Your task to perform on an android device: turn off javascript in the chrome app Image 0: 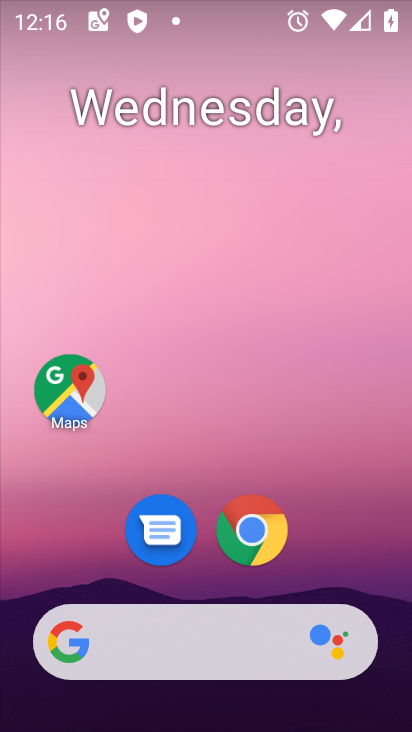
Step 0: click (256, 528)
Your task to perform on an android device: turn off javascript in the chrome app Image 1: 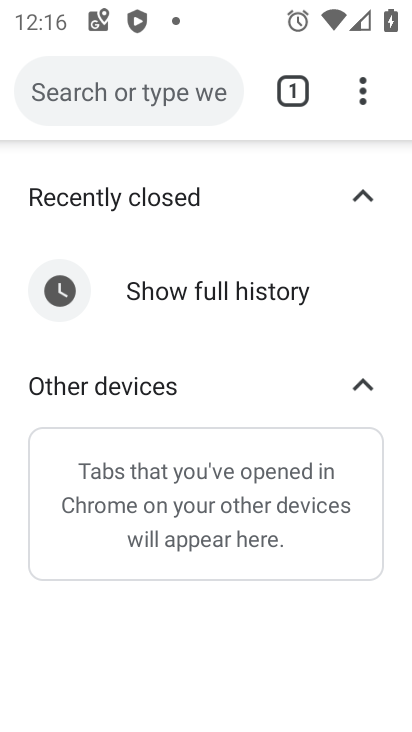
Step 1: click (363, 95)
Your task to perform on an android device: turn off javascript in the chrome app Image 2: 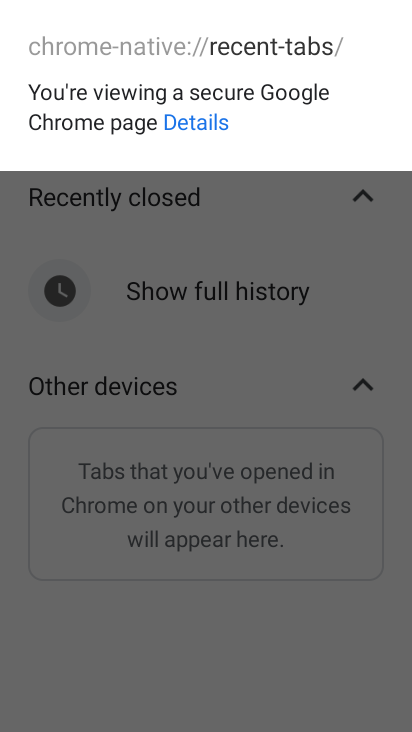
Step 2: click (264, 210)
Your task to perform on an android device: turn off javascript in the chrome app Image 3: 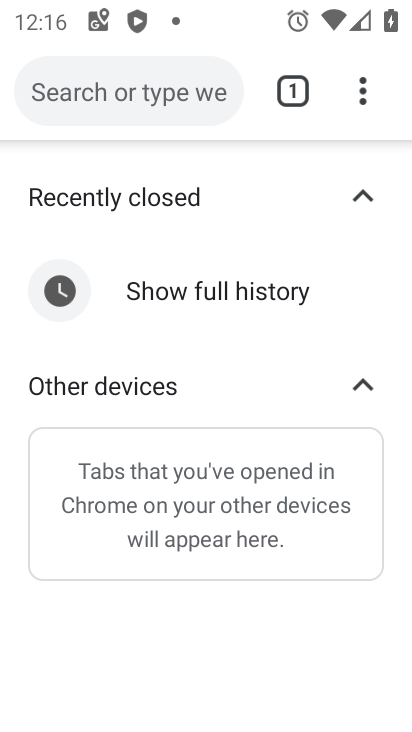
Step 3: click (361, 86)
Your task to perform on an android device: turn off javascript in the chrome app Image 4: 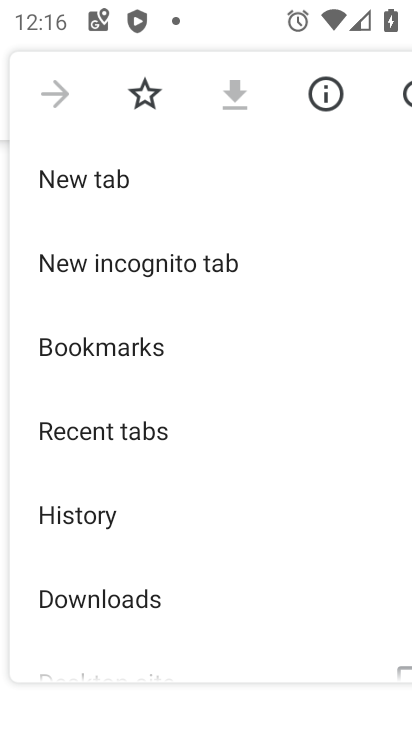
Step 4: drag from (103, 618) to (228, 238)
Your task to perform on an android device: turn off javascript in the chrome app Image 5: 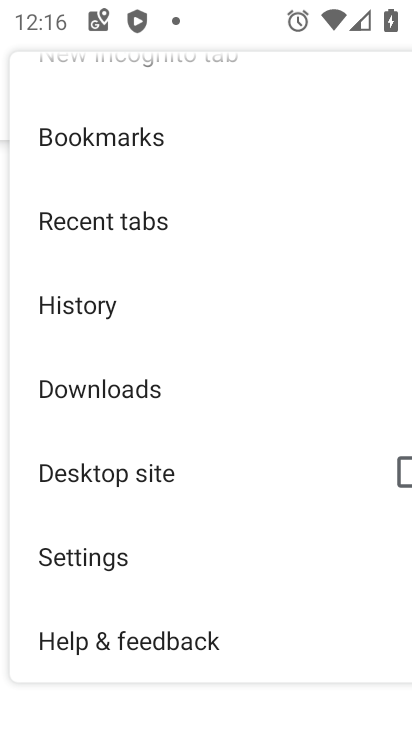
Step 5: click (78, 550)
Your task to perform on an android device: turn off javascript in the chrome app Image 6: 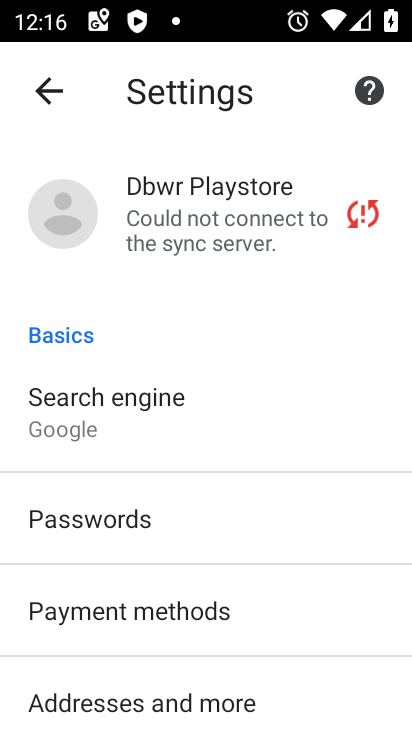
Step 6: drag from (251, 568) to (307, 206)
Your task to perform on an android device: turn off javascript in the chrome app Image 7: 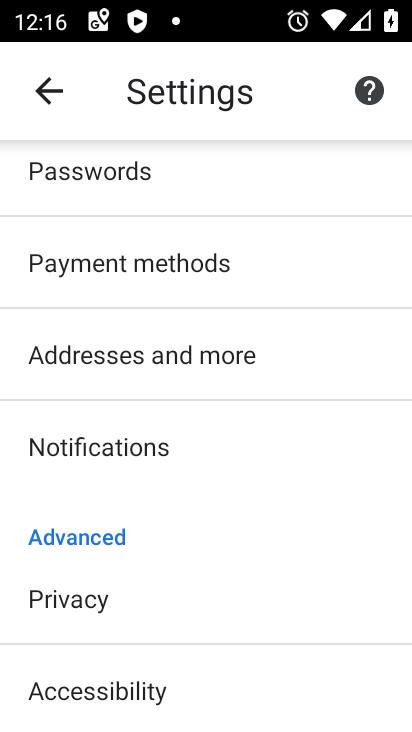
Step 7: drag from (189, 530) to (300, 221)
Your task to perform on an android device: turn off javascript in the chrome app Image 8: 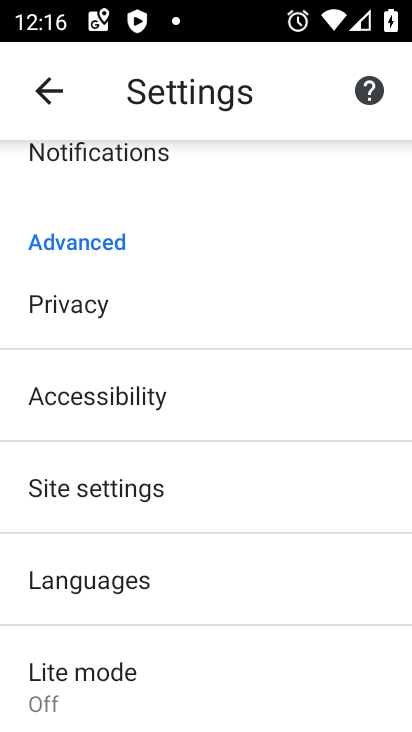
Step 8: click (85, 496)
Your task to perform on an android device: turn off javascript in the chrome app Image 9: 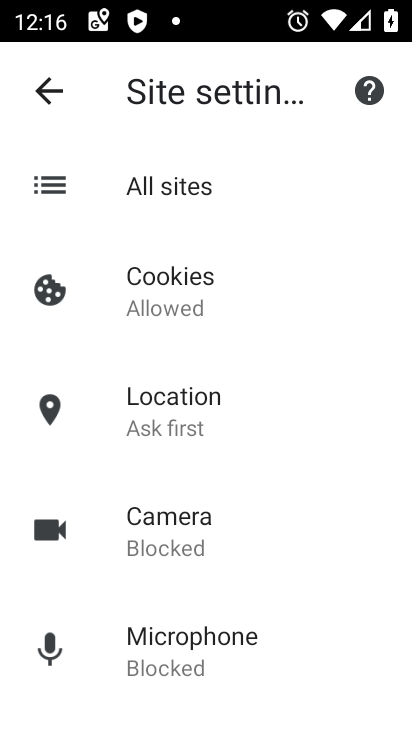
Step 9: drag from (192, 575) to (295, 187)
Your task to perform on an android device: turn off javascript in the chrome app Image 10: 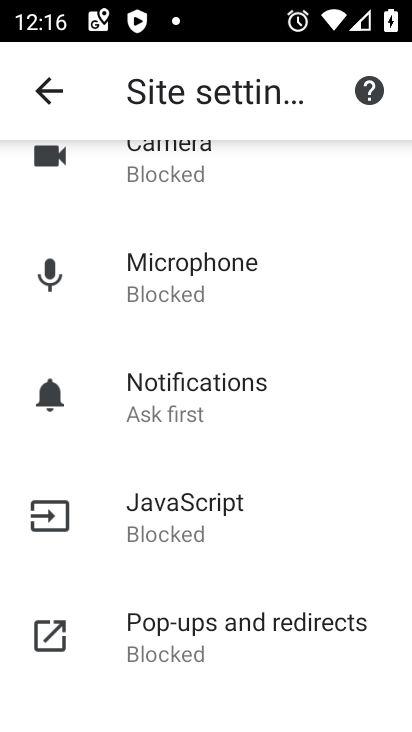
Step 10: click (182, 506)
Your task to perform on an android device: turn off javascript in the chrome app Image 11: 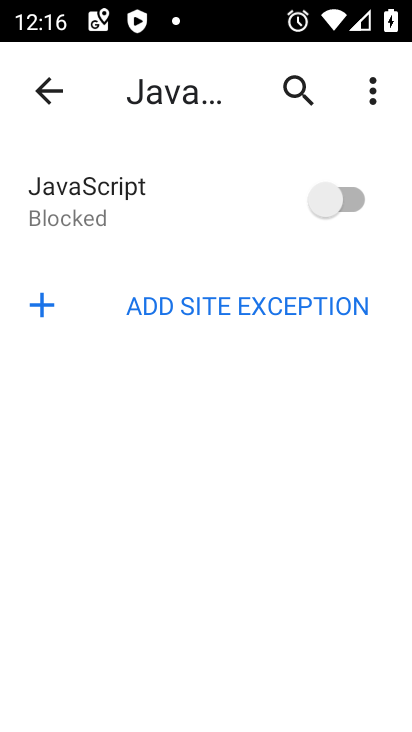
Step 11: task complete